Your task to perform on an android device: Is it going to rain this weekend? Image 0: 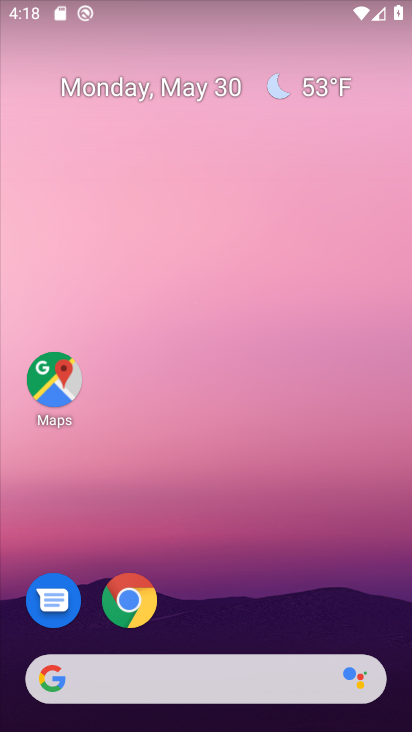
Step 0: drag from (273, 604) to (233, 63)
Your task to perform on an android device: Is it going to rain this weekend? Image 1: 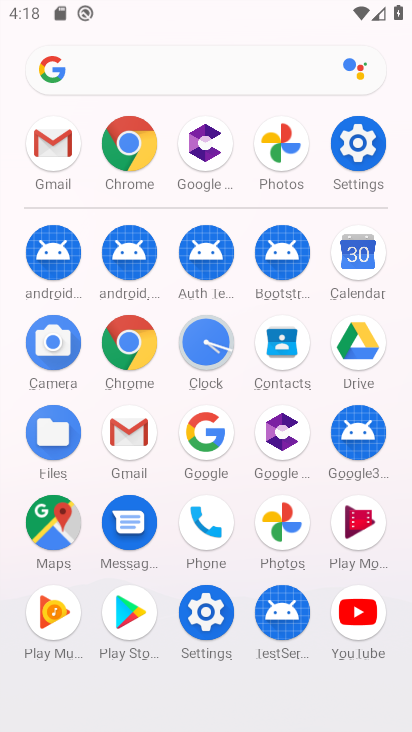
Step 1: press home button
Your task to perform on an android device: Is it going to rain this weekend? Image 2: 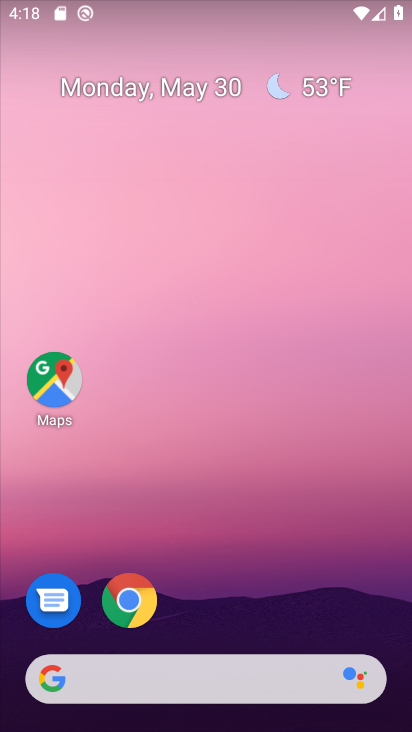
Step 2: click (334, 97)
Your task to perform on an android device: Is it going to rain this weekend? Image 3: 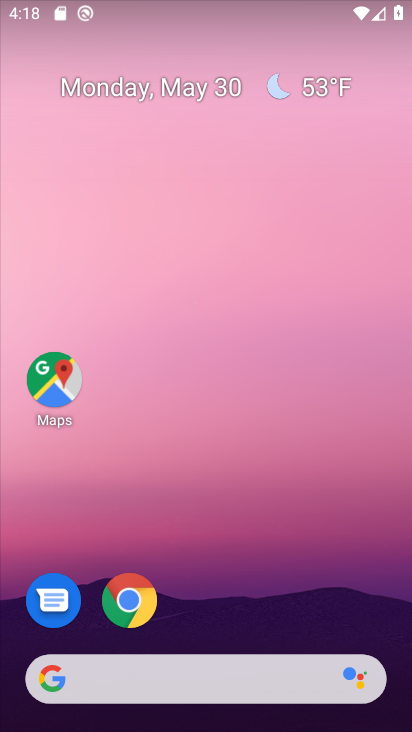
Step 3: click (335, 93)
Your task to perform on an android device: Is it going to rain this weekend? Image 4: 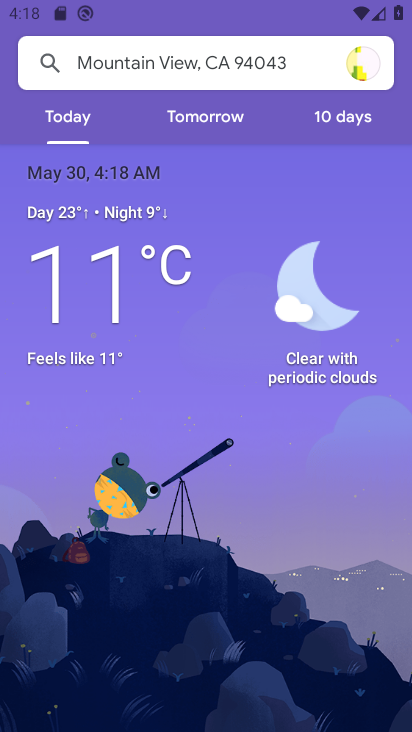
Step 4: click (313, 108)
Your task to perform on an android device: Is it going to rain this weekend? Image 5: 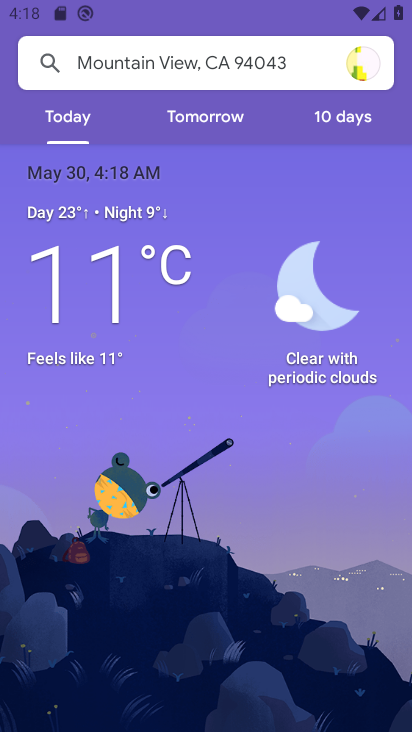
Step 5: click (330, 117)
Your task to perform on an android device: Is it going to rain this weekend? Image 6: 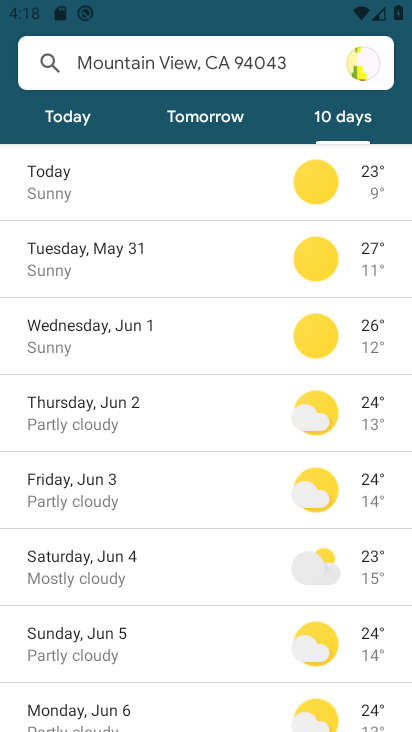
Step 6: task complete